Your task to perform on an android device: check storage Image 0: 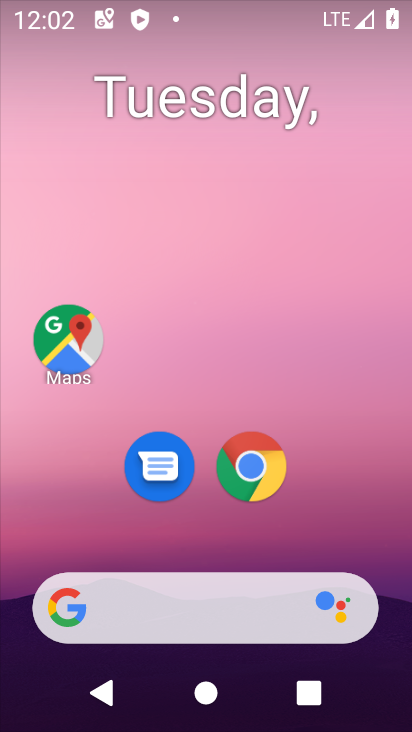
Step 0: drag from (158, 480) to (158, 175)
Your task to perform on an android device: check storage Image 1: 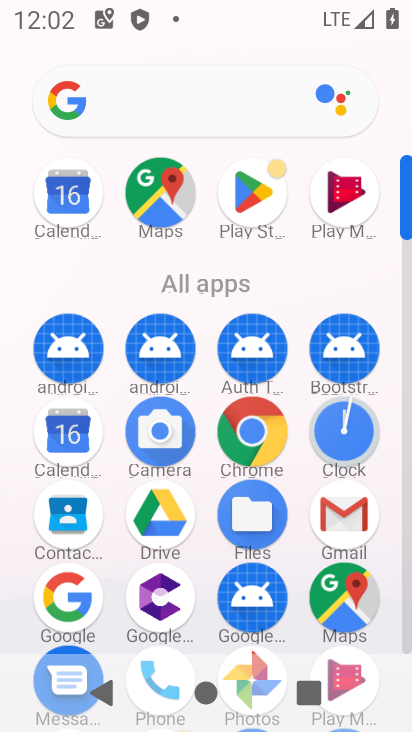
Step 1: drag from (198, 605) to (216, 154)
Your task to perform on an android device: check storage Image 2: 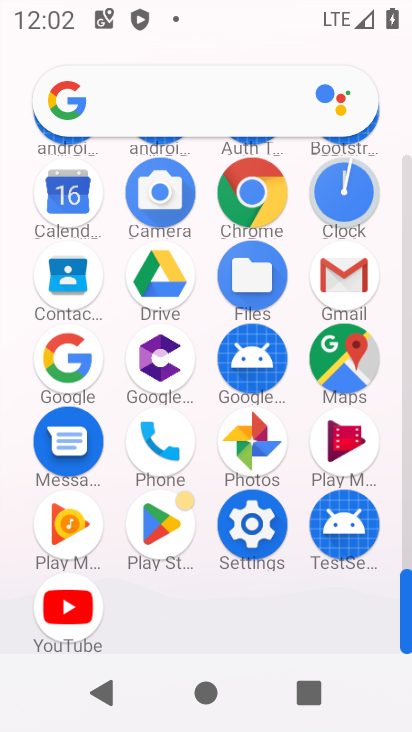
Step 2: click (249, 540)
Your task to perform on an android device: check storage Image 3: 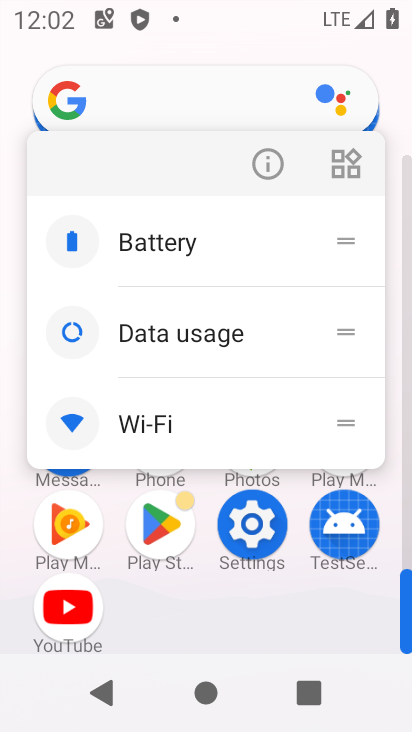
Step 3: click (244, 526)
Your task to perform on an android device: check storage Image 4: 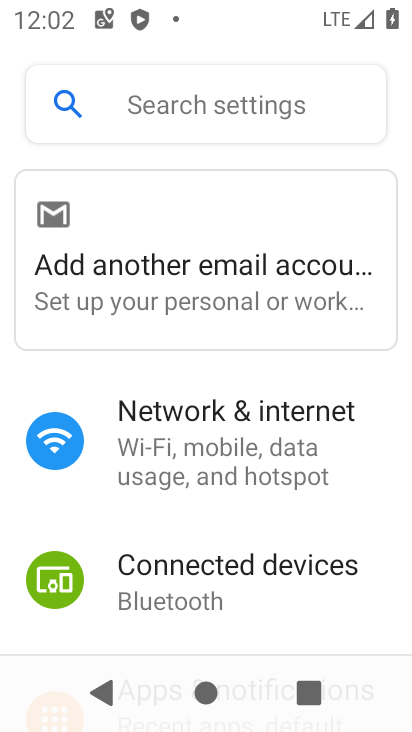
Step 4: drag from (162, 600) to (191, 145)
Your task to perform on an android device: check storage Image 5: 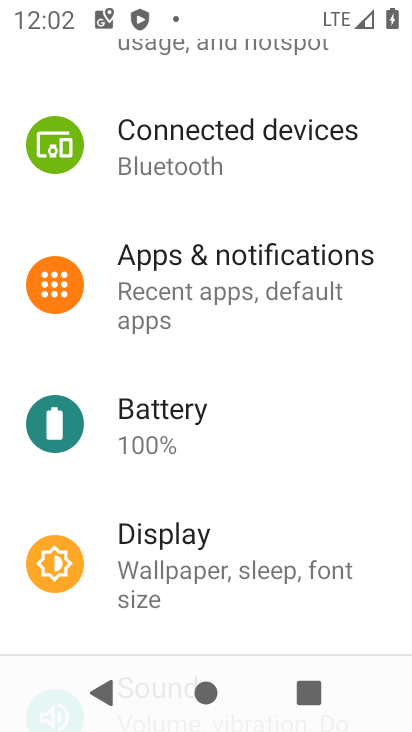
Step 5: drag from (184, 577) to (222, 201)
Your task to perform on an android device: check storage Image 6: 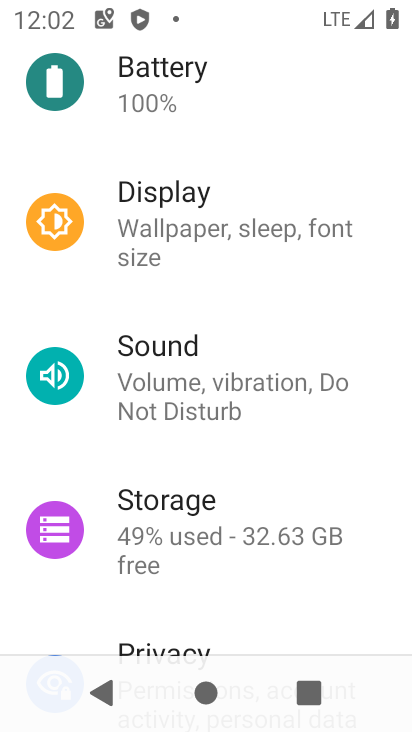
Step 6: click (147, 509)
Your task to perform on an android device: check storage Image 7: 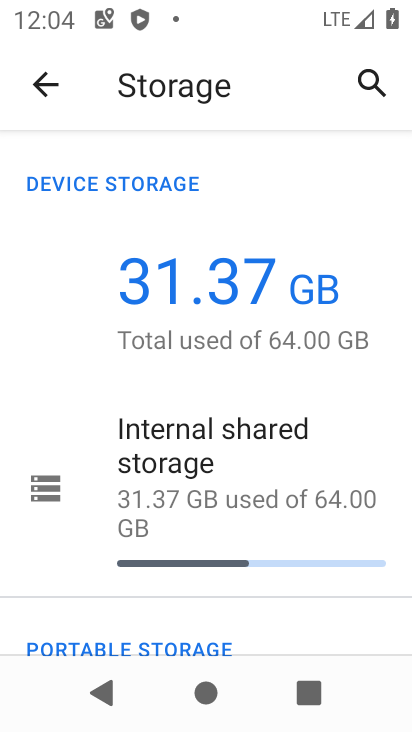
Step 7: task complete